Your task to perform on an android device: open chrome and create a bookmark for the current page Image 0: 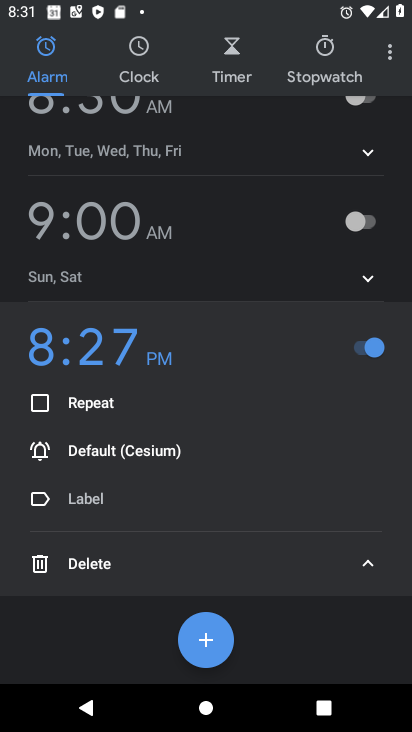
Step 0: press home button
Your task to perform on an android device: open chrome and create a bookmark for the current page Image 1: 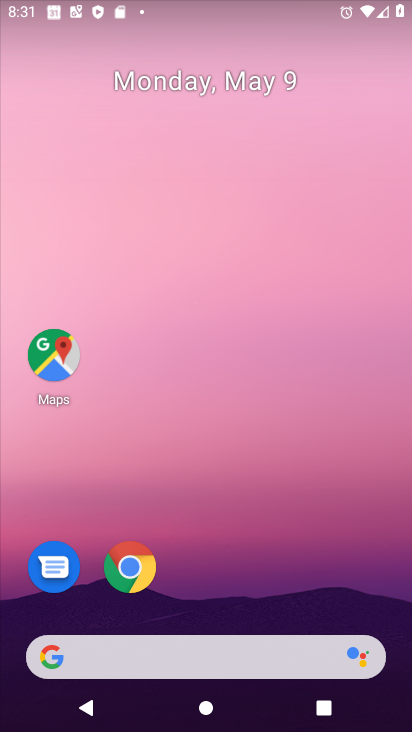
Step 1: click (292, 279)
Your task to perform on an android device: open chrome and create a bookmark for the current page Image 2: 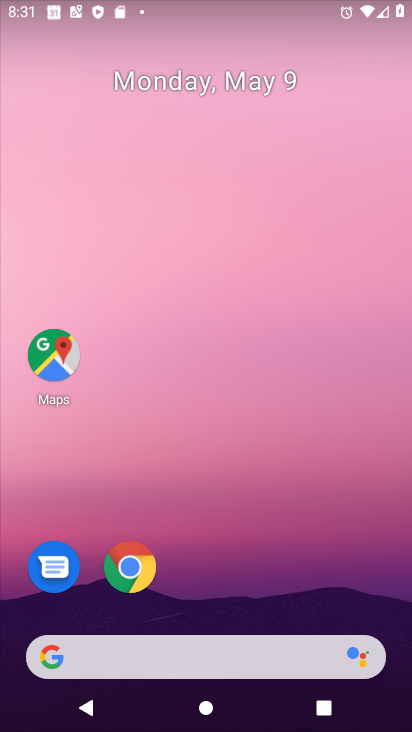
Step 2: drag from (284, 585) to (270, 132)
Your task to perform on an android device: open chrome and create a bookmark for the current page Image 3: 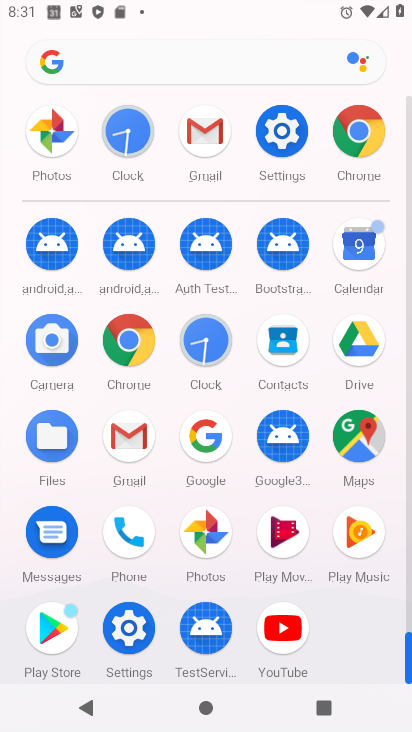
Step 3: click (372, 138)
Your task to perform on an android device: open chrome and create a bookmark for the current page Image 4: 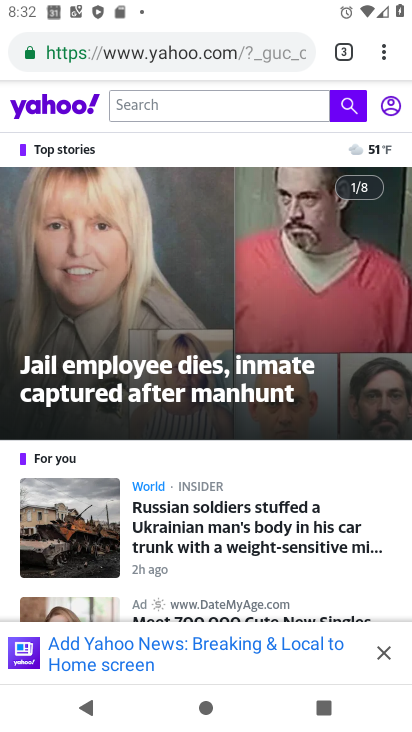
Step 4: click (379, 62)
Your task to perform on an android device: open chrome and create a bookmark for the current page Image 5: 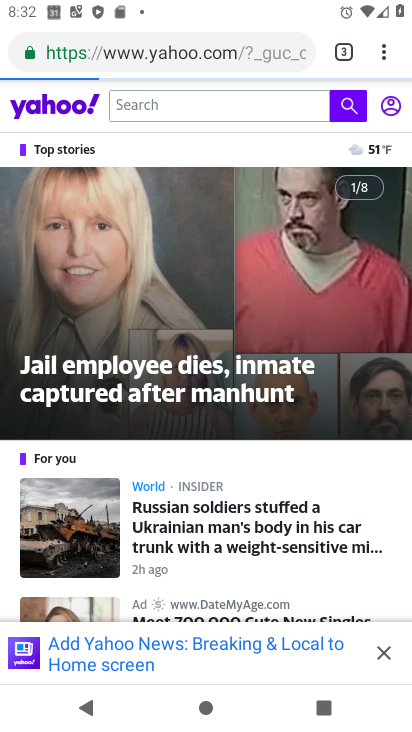
Step 5: task complete